Your task to perform on an android device: Open sound settings Image 0: 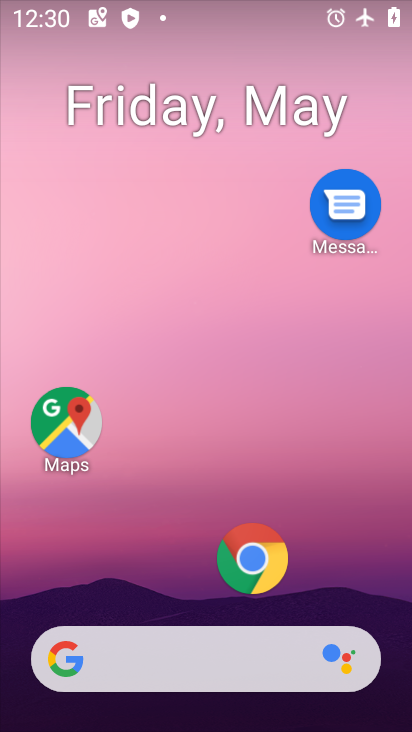
Step 0: drag from (195, 562) to (211, 0)
Your task to perform on an android device: Open sound settings Image 1: 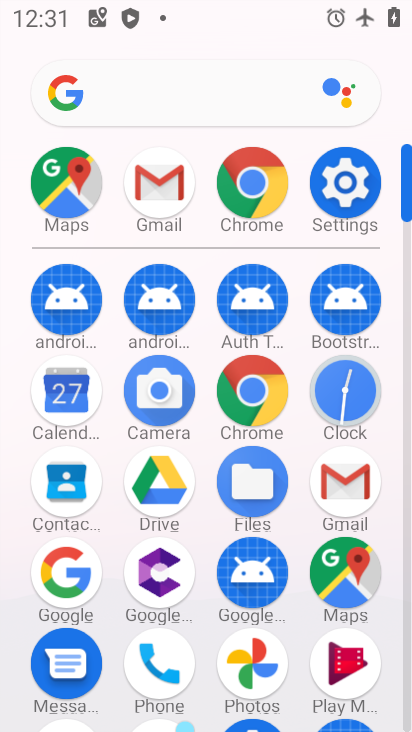
Step 1: click (350, 204)
Your task to perform on an android device: Open sound settings Image 2: 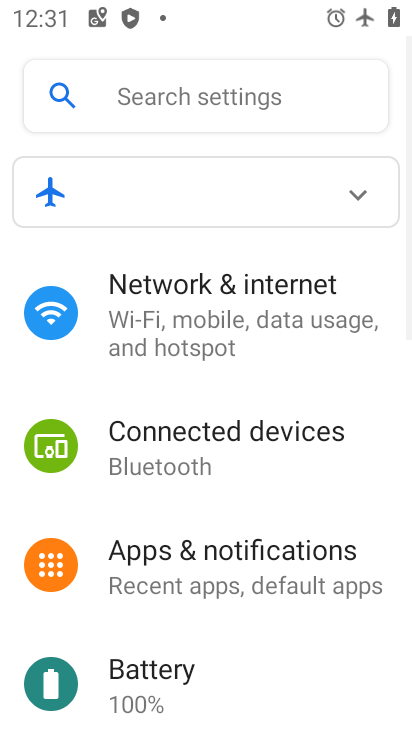
Step 2: drag from (264, 511) to (280, 214)
Your task to perform on an android device: Open sound settings Image 3: 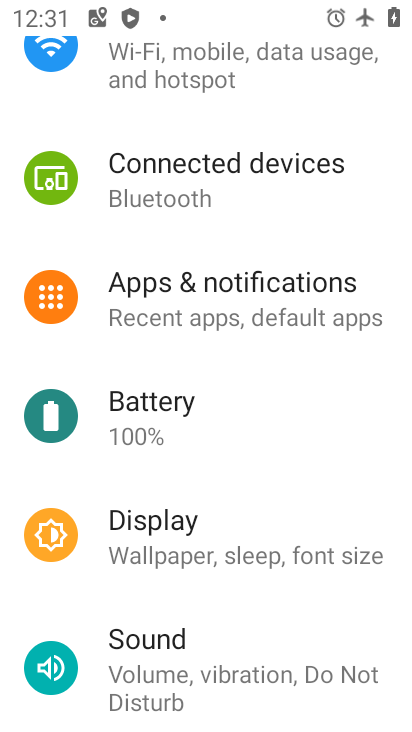
Step 3: drag from (214, 530) to (198, 288)
Your task to perform on an android device: Open sound settings Image 4: 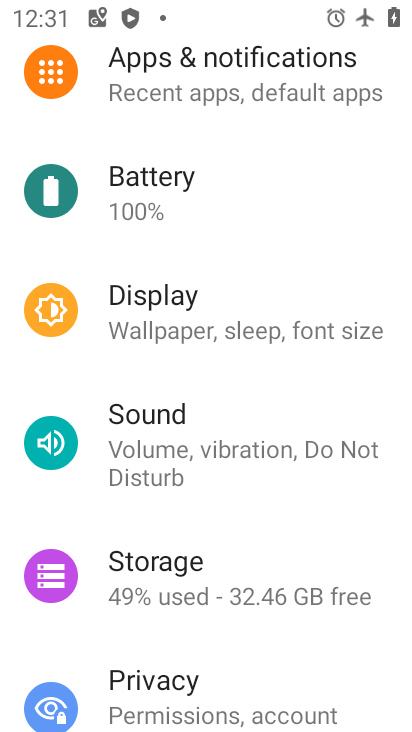
Step 4: click (211, 436)
Your task to perform on an android device: Open sound settings Image 5: 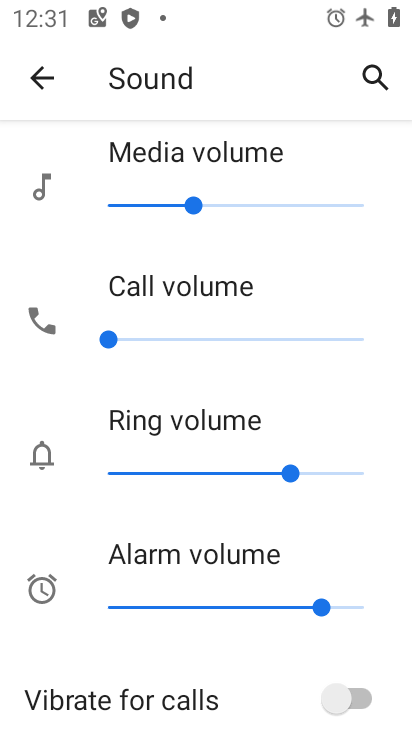
Step 5: task complete